Your task to perform on an android device: Go to eBay Image 0: 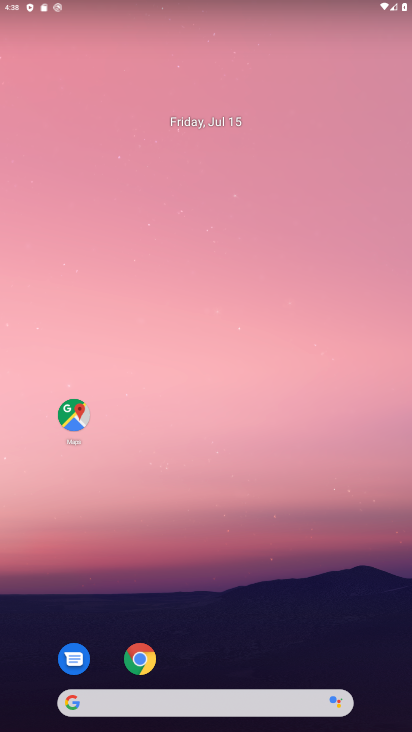
Step 0: click (143, 645)
Your task to perform on an android device: Go to eBay Image 1: 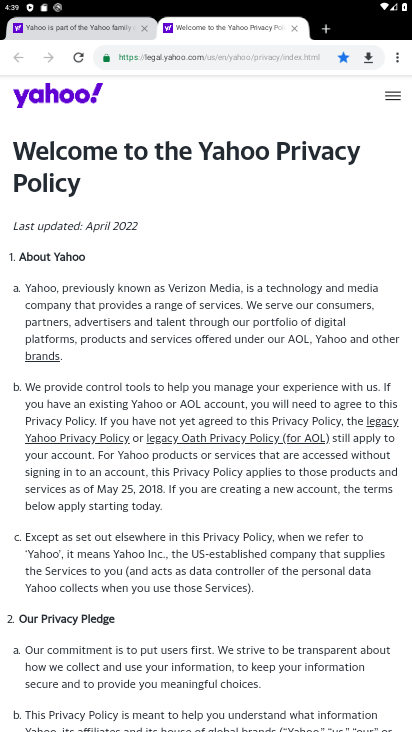
Step 1: click (329, 25)
Your task to perform on an android device: Go to eBay Image 2: 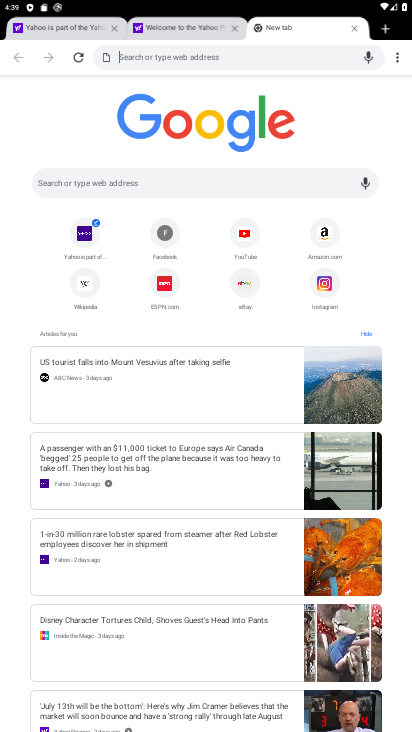
Step 2: click (243, 280)
Your task to perform on an android device: Go to eBay Image 3: 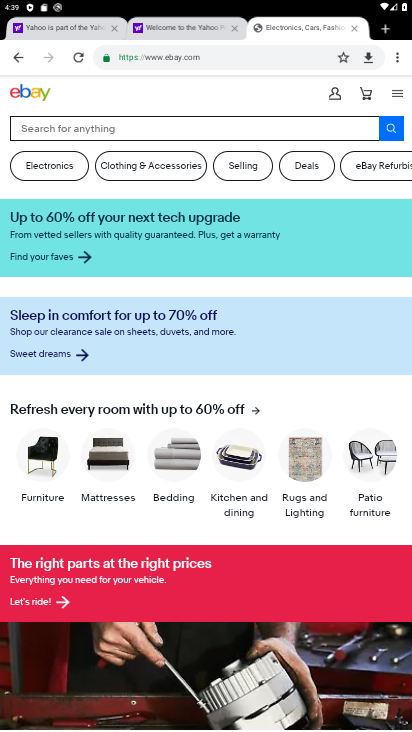
Step 3: task complete